Your task to perform on an android device: search for starred emails in the gmail app Image 0: 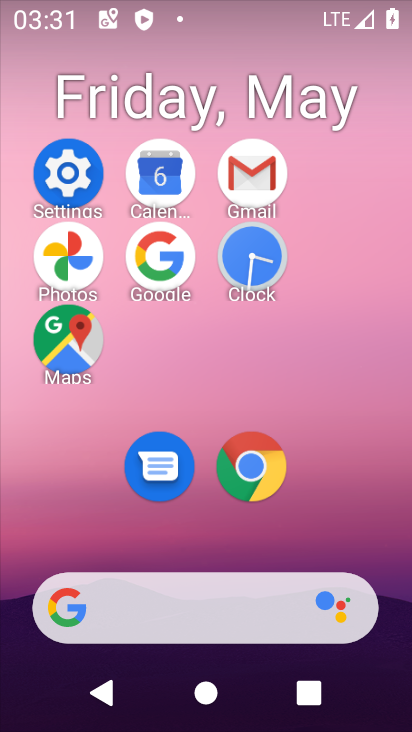
Step 0: click (265, 182)
Your task to perform on an android device: search for starred emails in the gmail app Image 1: 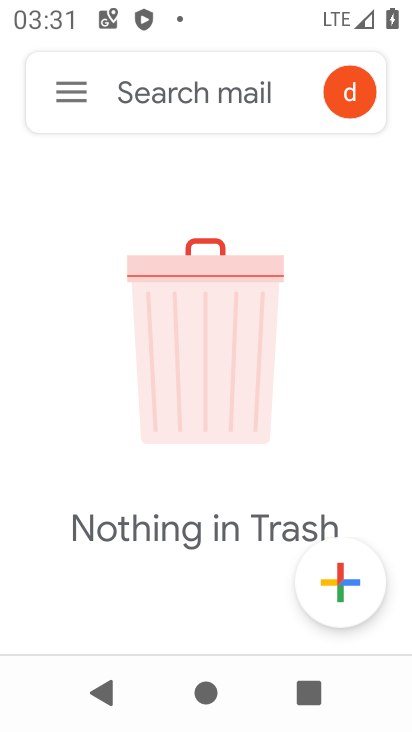
Step 1: click (64, 103)
Your task to perform on an android device: search for starred emails in the gmail app Image 2: 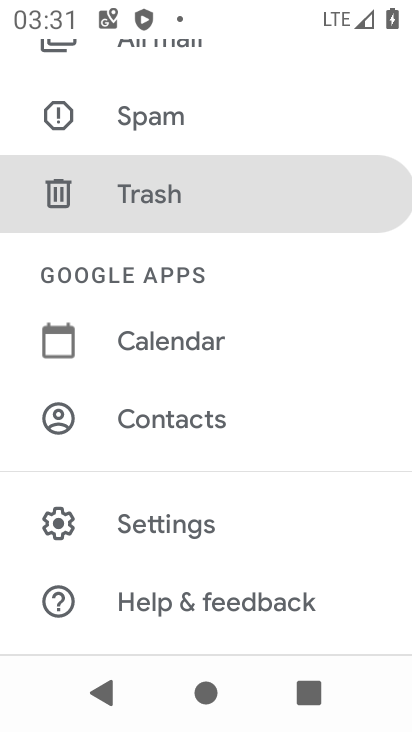
Step 2: drag from (220, 127) to (311, 569)
Your task to perform on an android device: search for starred emails in the gmail app Image 3: 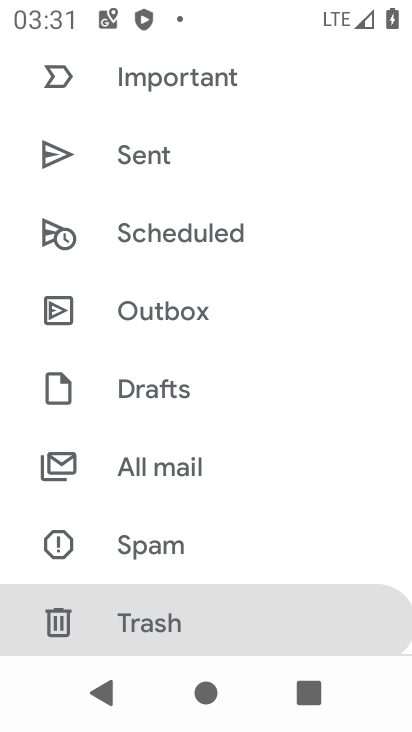
Step 3: drag from (279, 183) to (354, 560)
Your task to perform on an android device: search for starred emails in the gmail app Image 4: 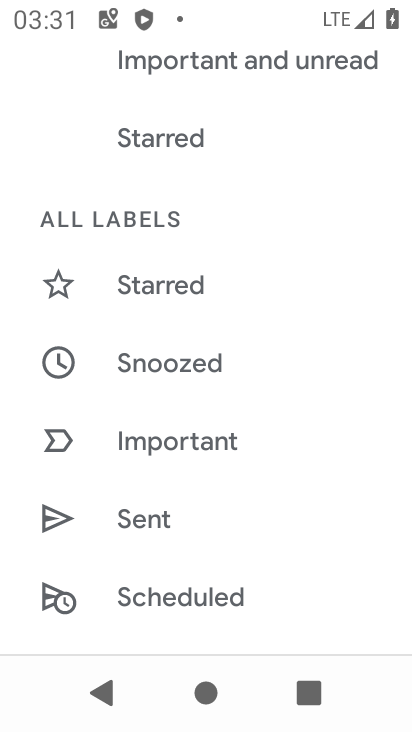
Step 4: click (219, 289)
Your task to perform on an android device: search for starred emails in the gmail app Image 5: 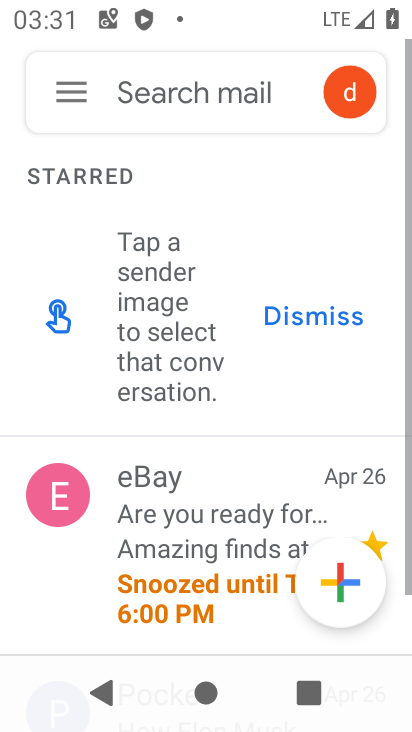
Step 5: task complete